Your task to perform on an android device: turn pop-ups on in chrome Image 0: 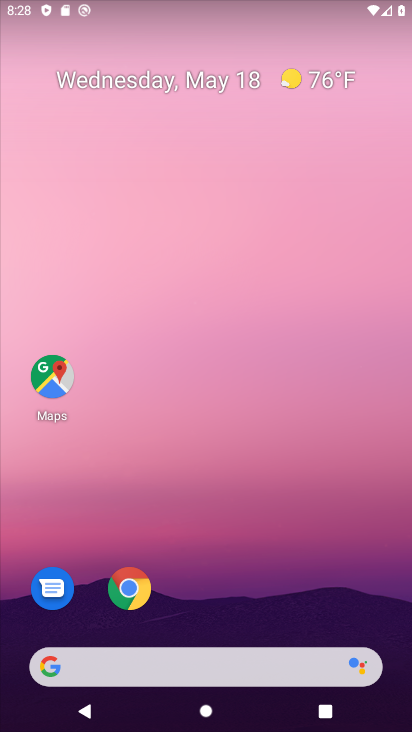
Step 0: click (128, 601)
Your task to perform on an android device: turn pop-ups on in chrome Image 1: 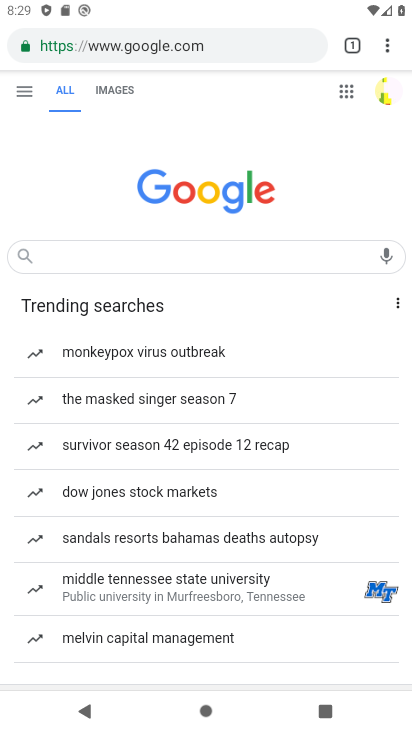
Step 1: click (400, 34)
Your task to perform on an android device: turn pop-ups on in chrome Image 2: 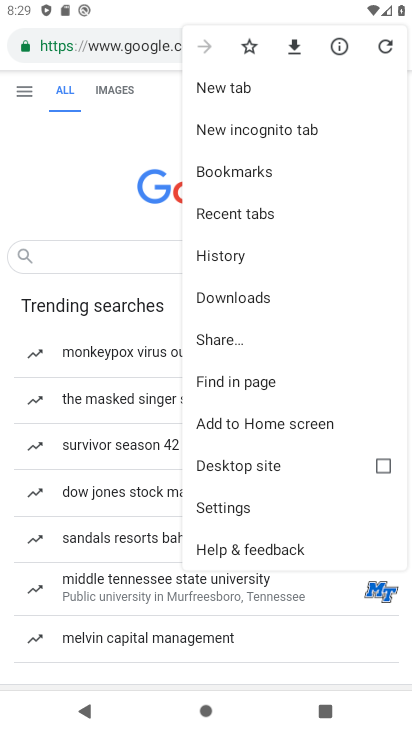
Step 2: click (238, 502)
Your task to perform on an android device: turn pop-ups on in chrome Image 3: 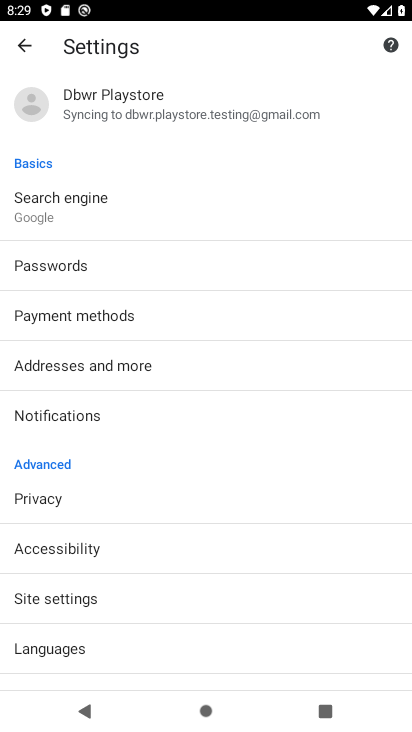
Step 3: drag from (185, 605) to (191, 424)
Your task to perform on an android device: turn pop-ups on in chrome Image 4: 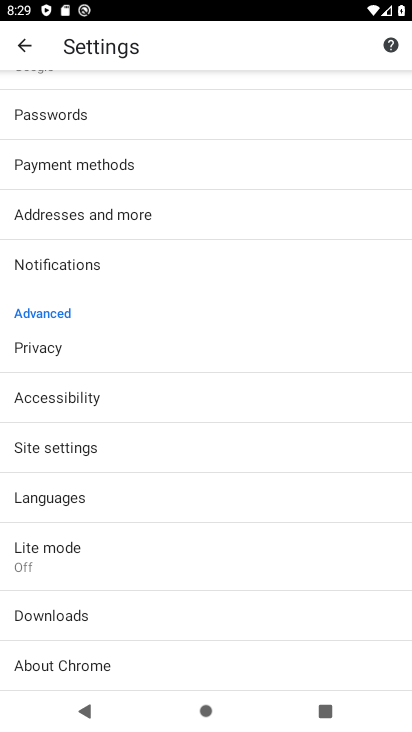
Step 4: click (182, 454)
Your task to perform on an android device: turn pop-ups on in chrome Image 5: 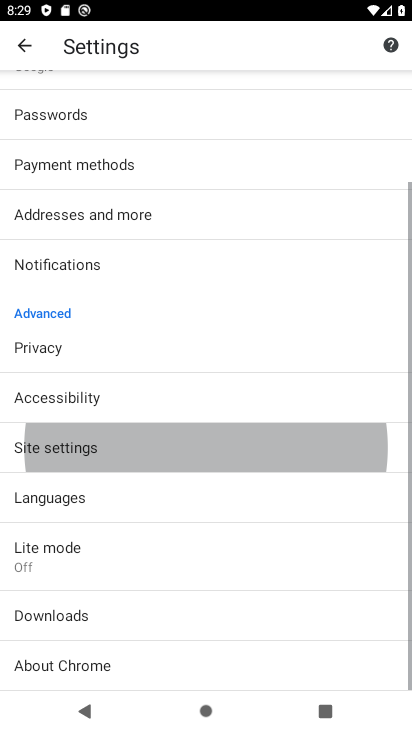
Step 5: click (182, 454)
Your task to perform on an android device: turn pop-ups on in chrome Image 6: 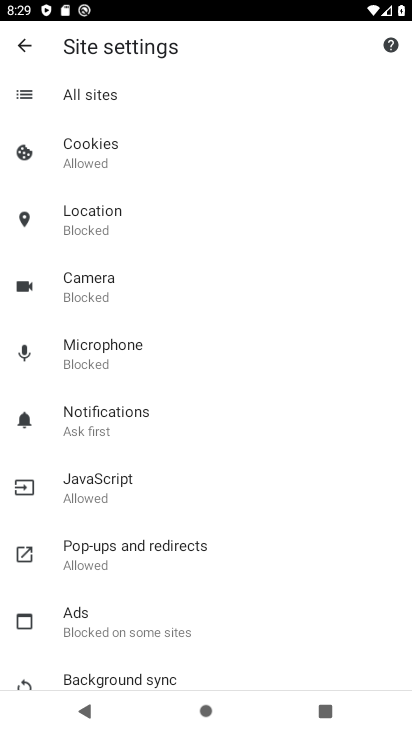
Step 6: click (148, 557)
Your task to perform on an android device: turn pop-ups on in chrome Image 7: 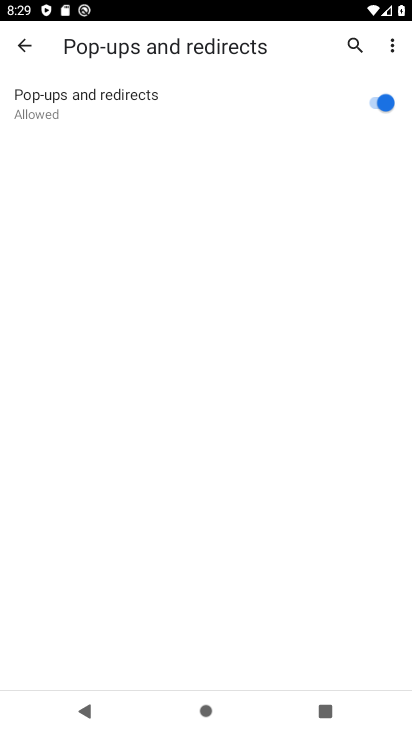
Step 7: task complete